Your task to perform on an android device: Open Google Chrome and click the shortcut for Amazon.com Image 0: 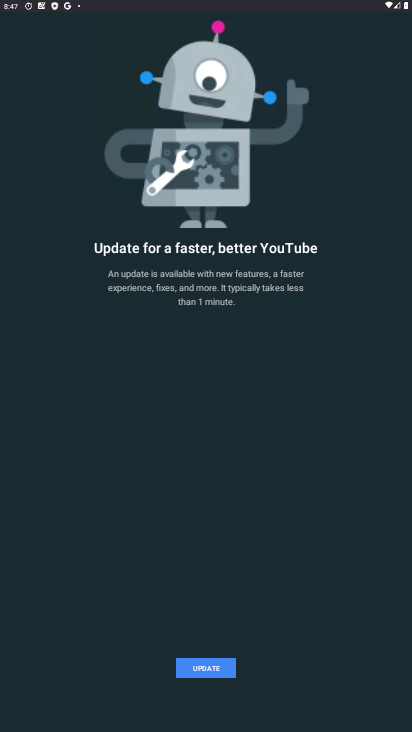
Step 0: press home button
Your task to perform on an android device: Open Google Chrome and click the shortcut for Amazon.com Image 1: 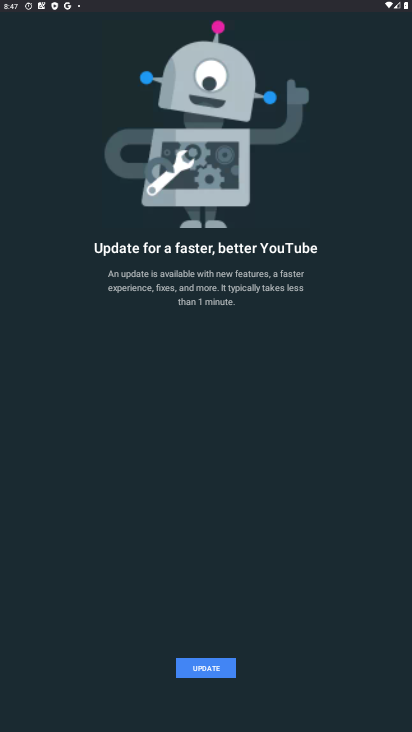
Step 1: press home button
Your task to perform on an android device: Open Google Chrome and click the shortcut for Amazon.com Image 2: 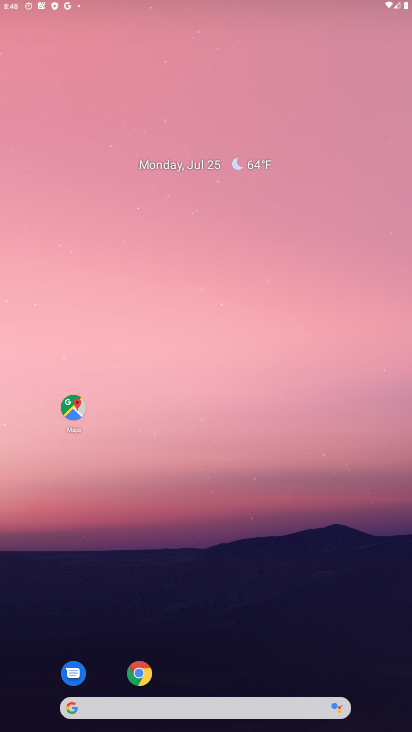
Step 2: drag from (165, 605) to (250, 22)
Your task to perform on an android device: Open Google Chrome and click the shortcut for Amazon.com Image 3: 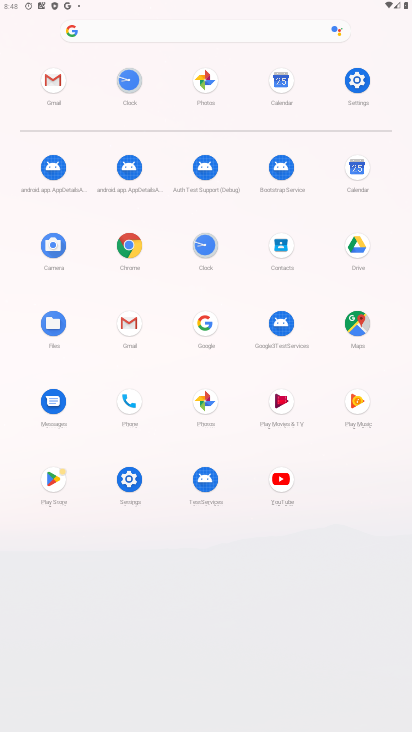
Step 3: click (120, 242)
Your task to perform on an android device: Open Google Chrome and click the shortcut for Amazon.com Image 4: 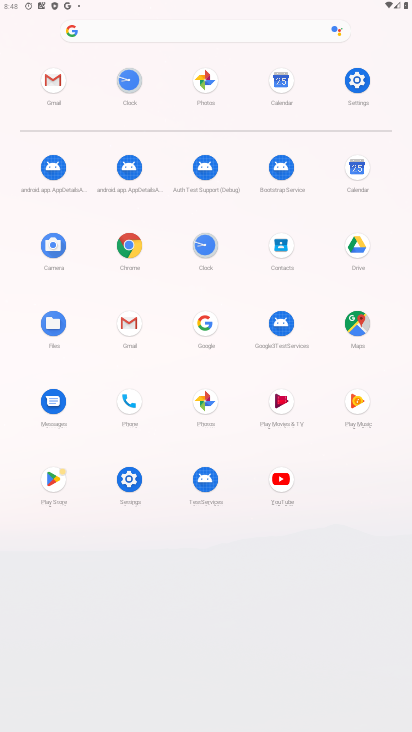
Step 4: click (120, 242)
Your task to perform on an android device: Open Google Chrome and click the shortcut for Amazon.com Image 5: 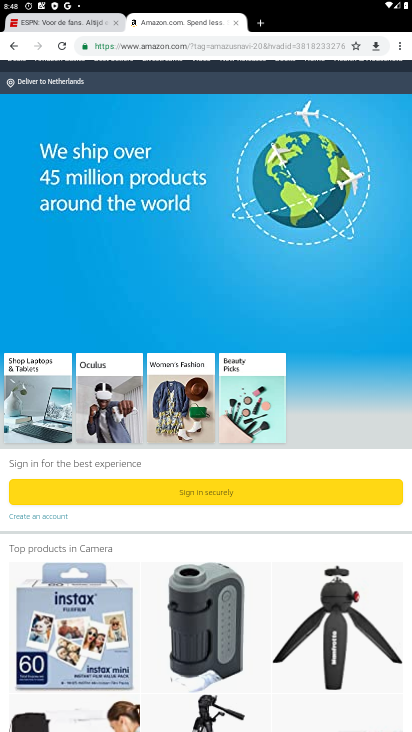
Step 5: click (265, 21)
Your task to perform on an android device: Open Google Chrome and click the shortcut for Amazon.com Image 6: 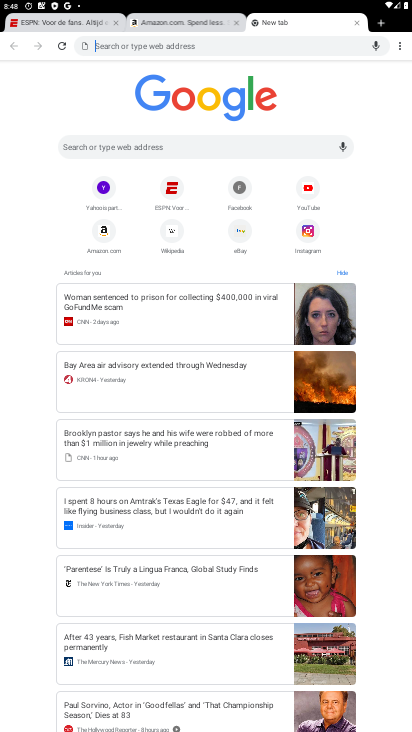
Step 6: click (95, 242)
Your task to perform on an android device: Open Google Chrome and click the shortcut for Amazon.com Image 7: 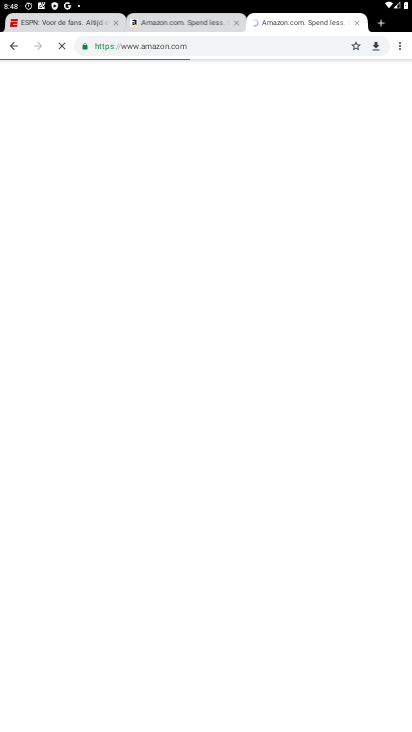
Step 7: task complete